Your task to perform on an android device: open sync settings in chrome Image 0: 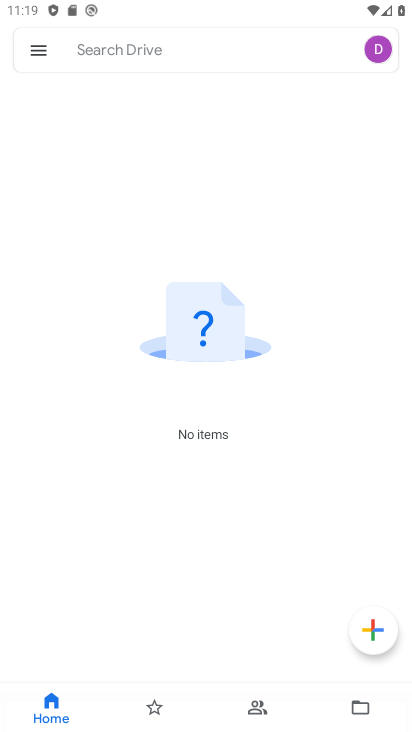
Step 0: press home button
Your task to perform on an android device: open sync settings in chrome Image 1: 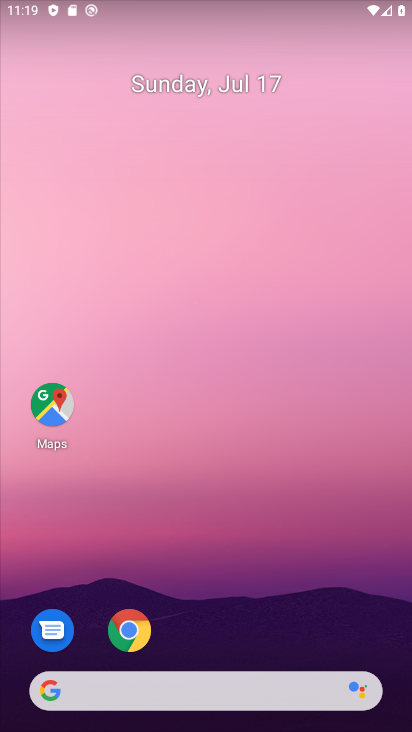
Step 1: drag from (225, 656) to (202, 230)
Your task to perform on an android device: open sync settings in chrome Image 2: 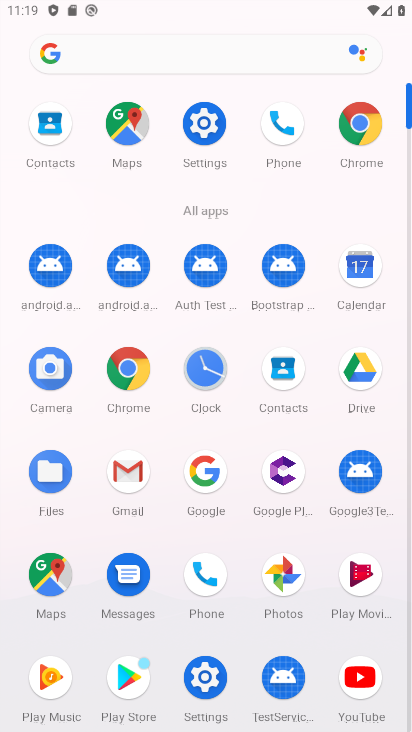
Step 2: click (134, 382)
Your task to perform on an android device: open sync settings in chrome Image 3: 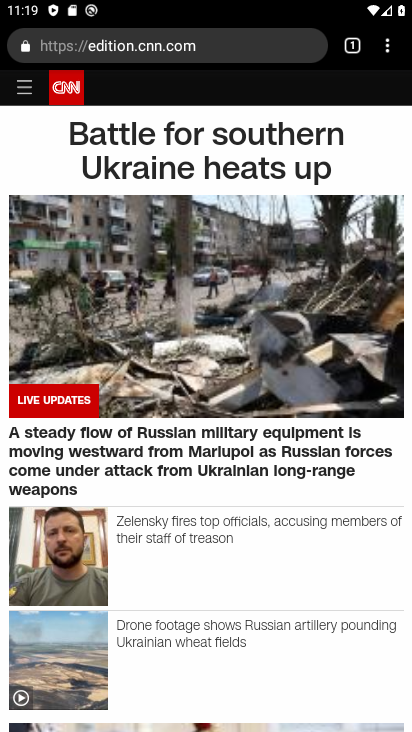
Step 3: click (385, 55)
Your task to perform on an android device: open sync settings in chrome Image 4: 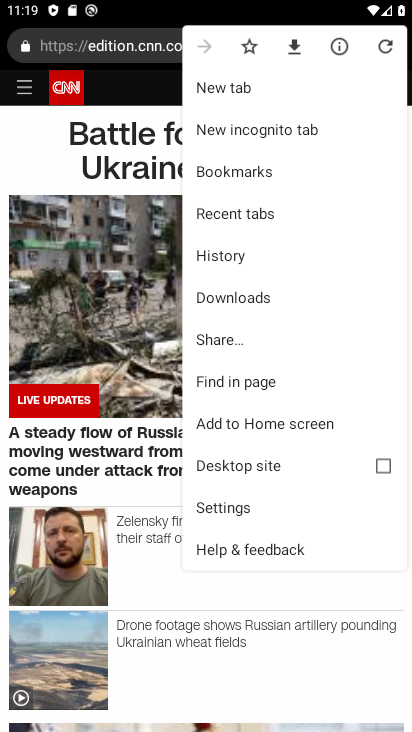
Step 4: click (233, 510)
Your task to perform on an android device: open sync settings in chrome Image 5: 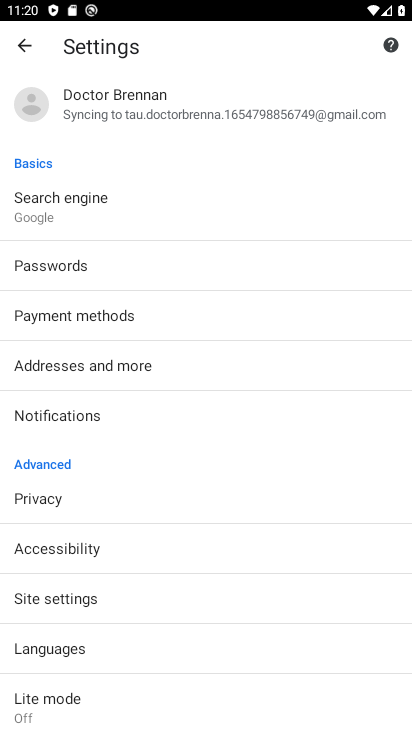
Step 5: click (130, 108)
Your task to perform on an android device: open sync settings in chrome Image 6: 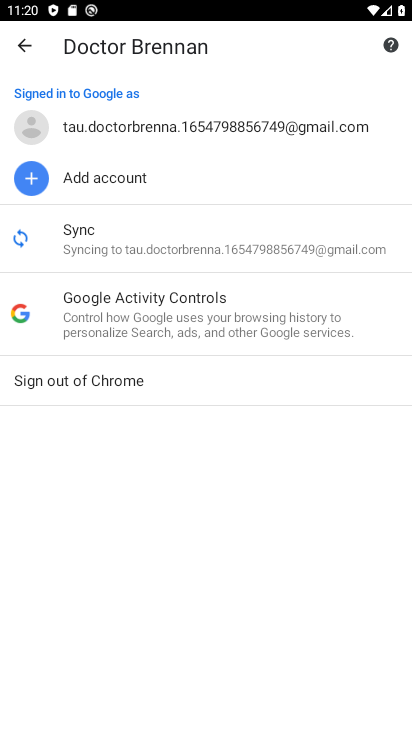
Step 6: click (84, 237)
Your task to perform on an android device: open sync settings in chrome Image 7: 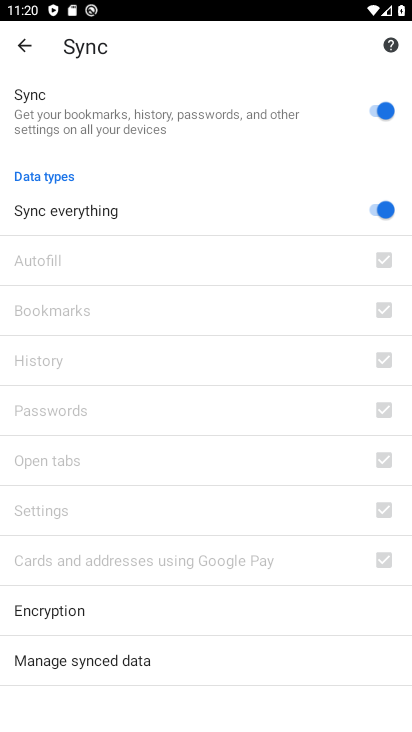
Step 7: task complete